Your task to perform on an android device: turn off wifi Image 0: 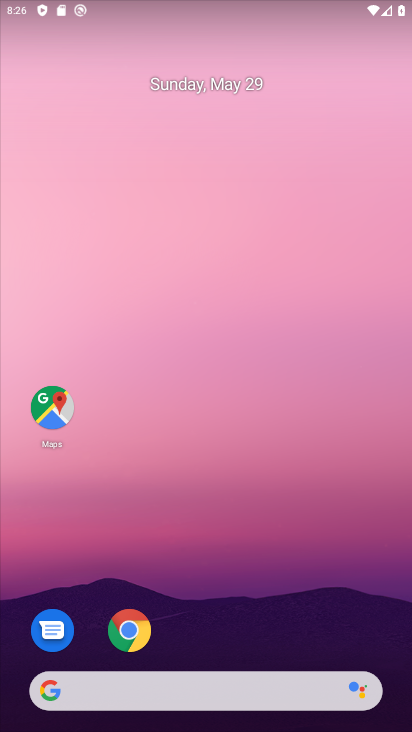
Step 0: drag from (174, 670) to (292, 232)
Your task to perform on an android device: turn off wifi Image 1: 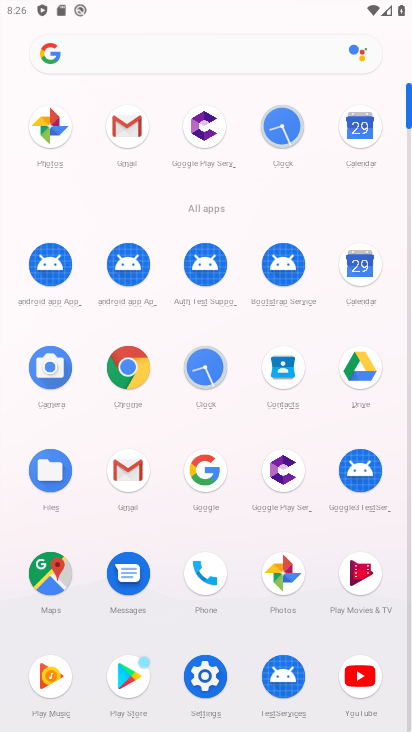
Step 1: drag from (163, 657) to (213, 437)
Your task to perform on an android device: turn off wifi Image 2: 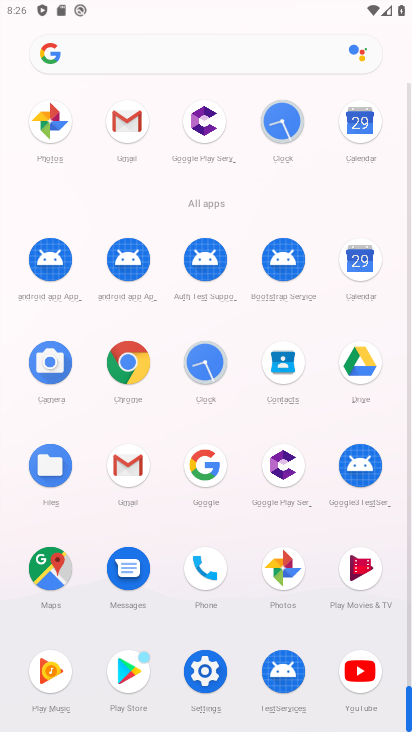
Step 2: click (201, 670)
Your task to perform on an android device: turn off wifi Image 3: 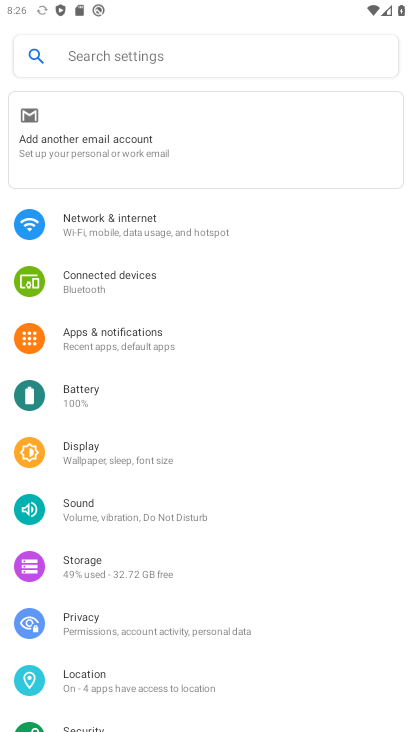
Step 3: click (293, 227)
Your task to perform on an android device: turn off wifi Image 4: 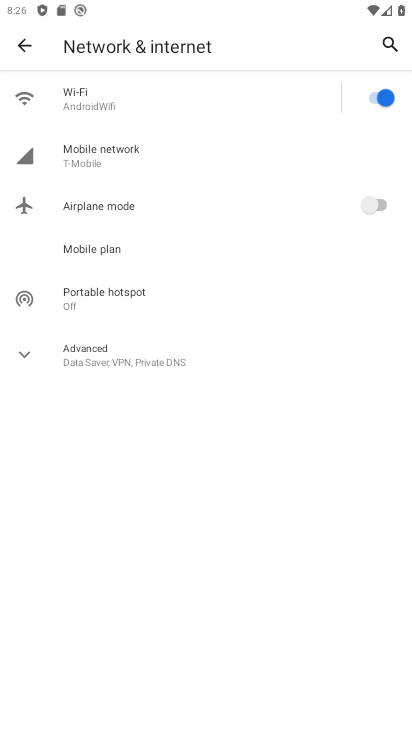
Step 4: click (380, 101)
Your task to perform on an android device: turn off wifi Image 5: 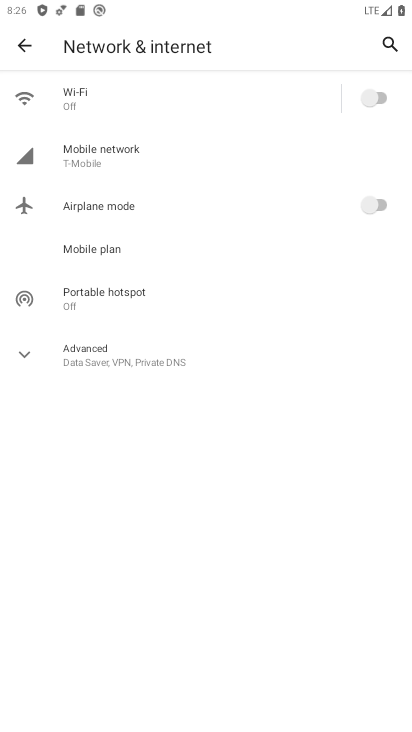
Step 5: task complete